Your task to perform on an android device: turn off javascript in the chrome app Image 0: 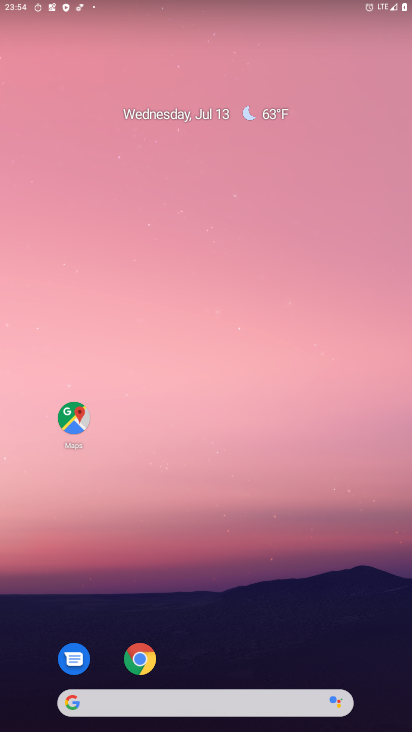
Step 0: drag from (270, 621) to (330, 23)
Your task to perform on an android device: turn off javascript in the chrome app Image 1: 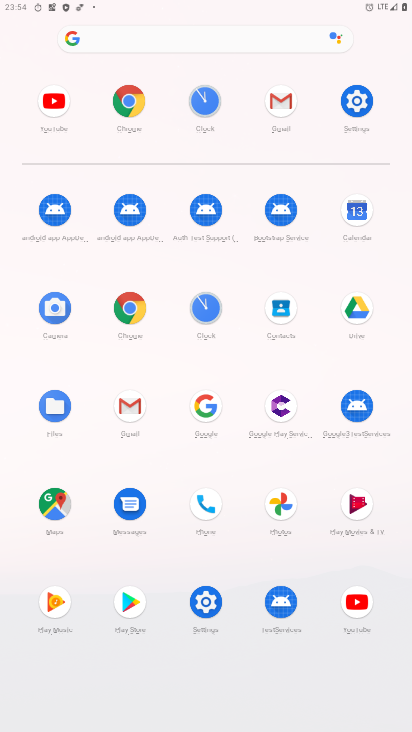
Step 1: click (128, 309)
Your task to perform on an android device: turn off javascript in the chrome app Image 2: 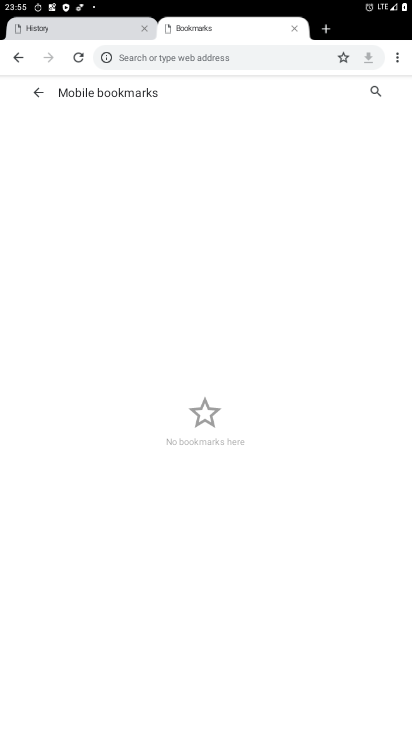
Step 2: click (398, 52)
Your task to perform on an android device: turn off javascript in the chrome app Image 3: 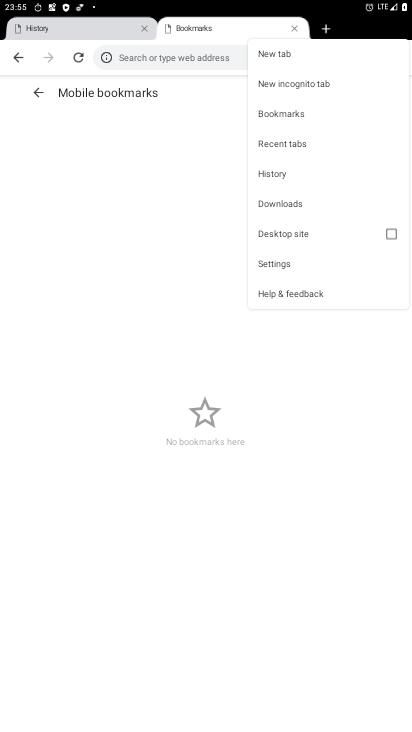
Step 3: click (285, 263)
Your task to perform on an android device: turn off javascript in the chrome app Image 4: 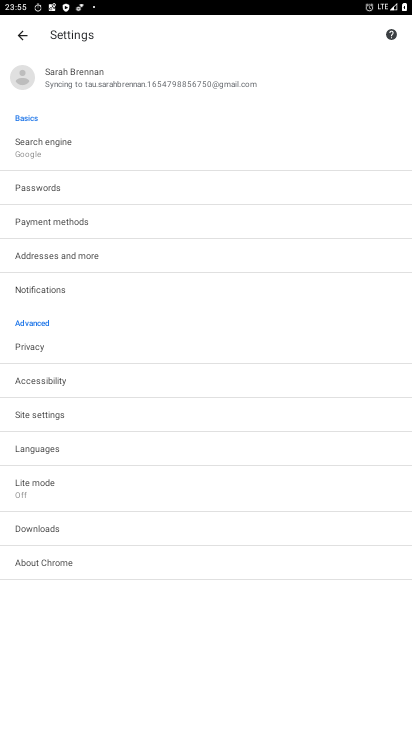
Step 4: click (59, 409)
Your task to perform on an android device: turn off javascript in the chrome app Image 5: 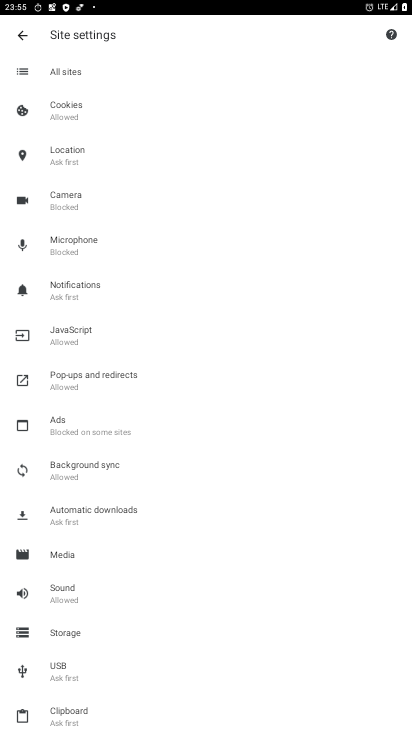
Step 5: click (66, 342)
Your task to perform on an android device: turn off javascript in the chrome app Image 6: 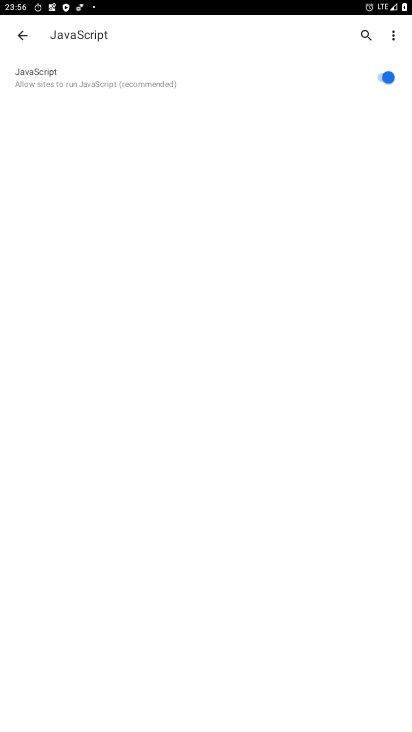
Step 6: click (387, 78)
Your task to perform on an android device: turn off javascript in the chrome app Image 7: 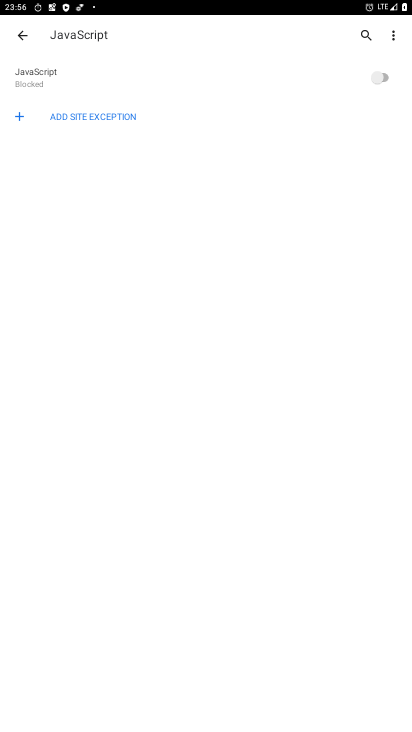
Step 7: task complete